Your task to perform on an android device: Go to internet settings Image 0: 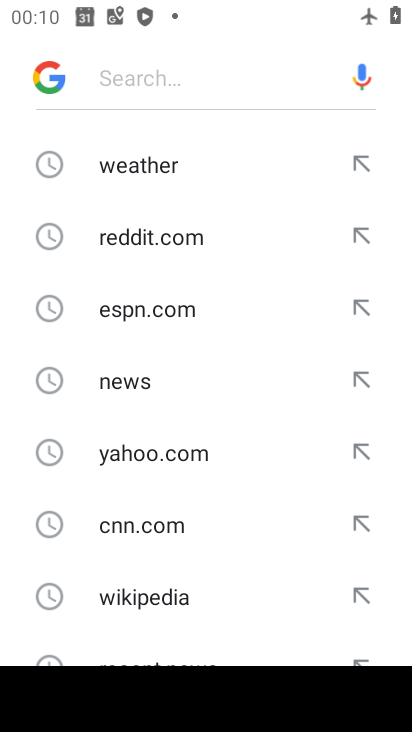
Step 0: press home button
Your task to perform on an android device: Go to internet settings Image 1: 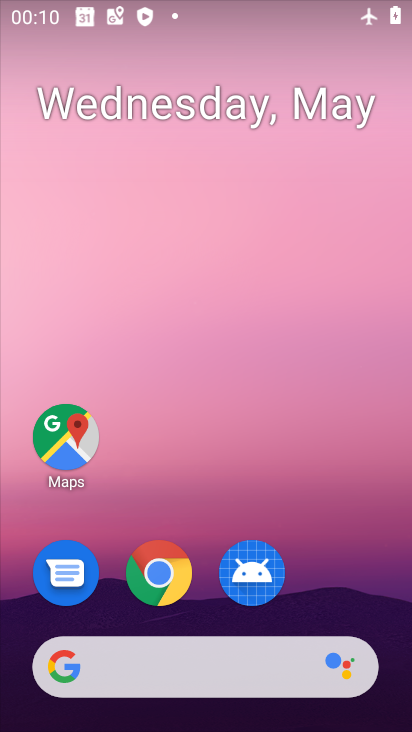
Step 1: drag from (312, 472) to (329, 187)
Your task to perform on an android device: Go to internet settings Image 2: 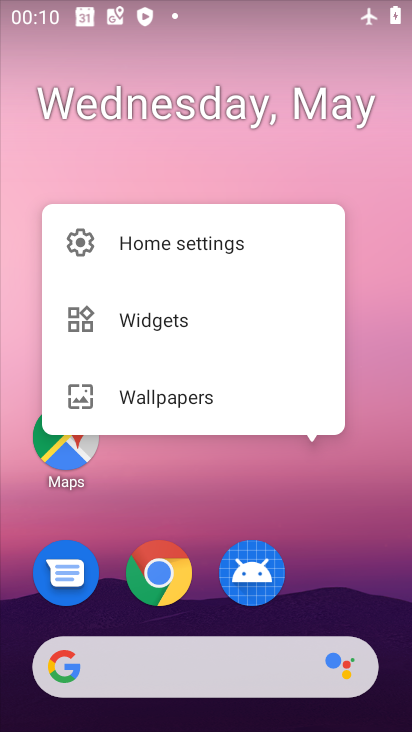
Step 2: click (358, 544)
Your task to perform on an android device: Go to internet settings Image 3: 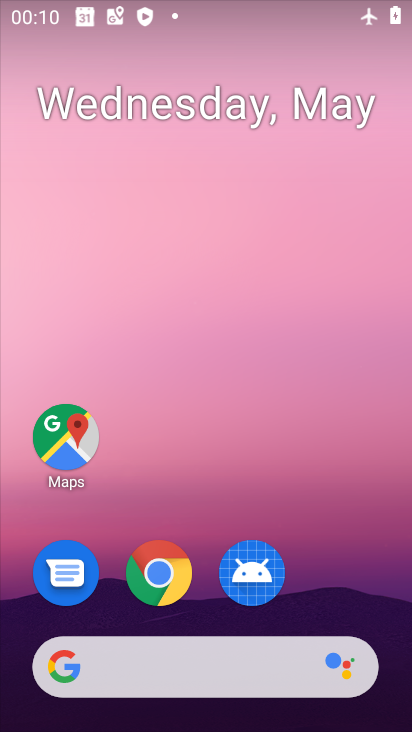
Step 3: drag from (337, 576) to (396, 259)
Your task to perform on an android device: Go to internet settings Image 4: 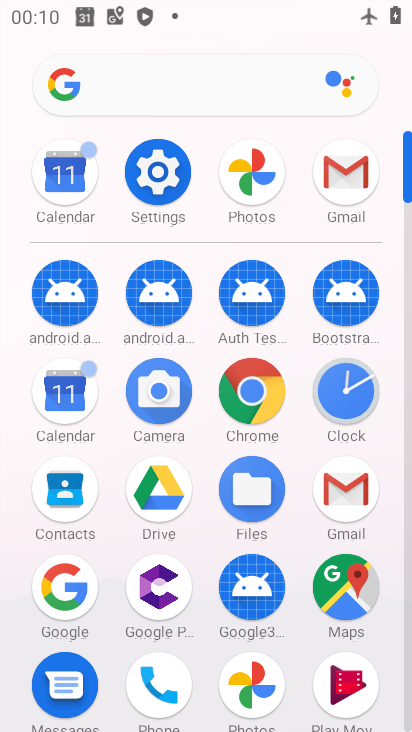
Step 4: click (156, 178)
Your task to perform on an android device: Go to internet settings Image 5: 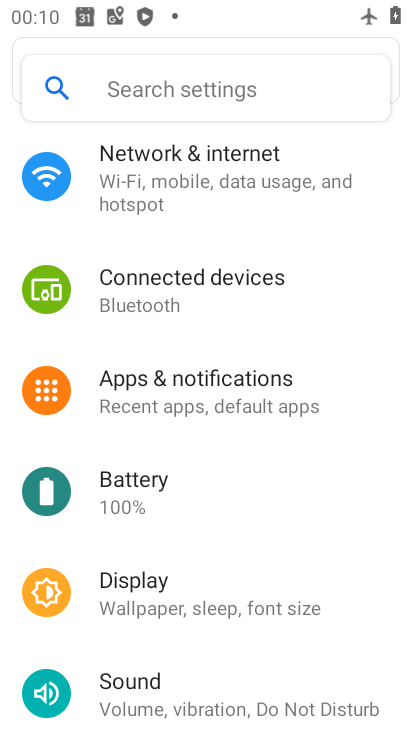
Step 5: click (184, 160)
Your task to perform on an android device: Go to internet settings Image 6: 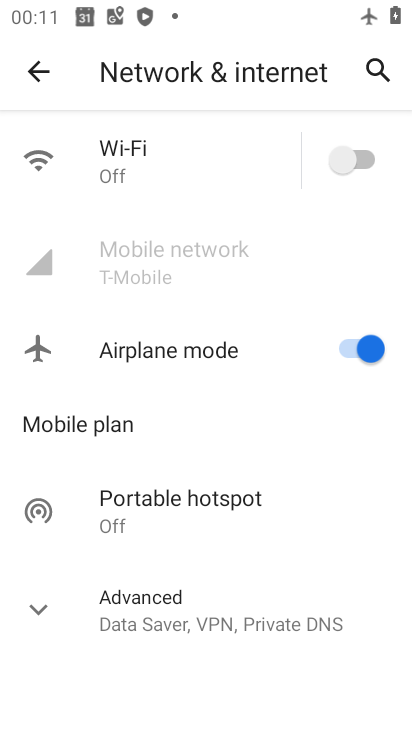
Step 6: task complete